Your task to perform on an android device: open app "Expedia: Hotels, Flights & Car" Image 0: 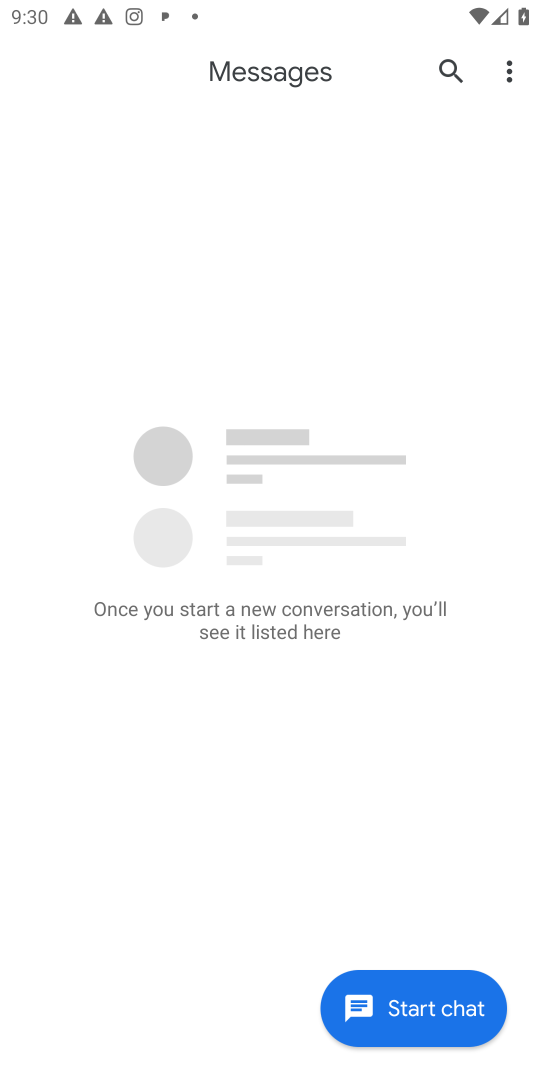
Step 0: press home button
Your task to perform on an android device: open app "Expedia: Hotels, Flights & Car" Image 1: 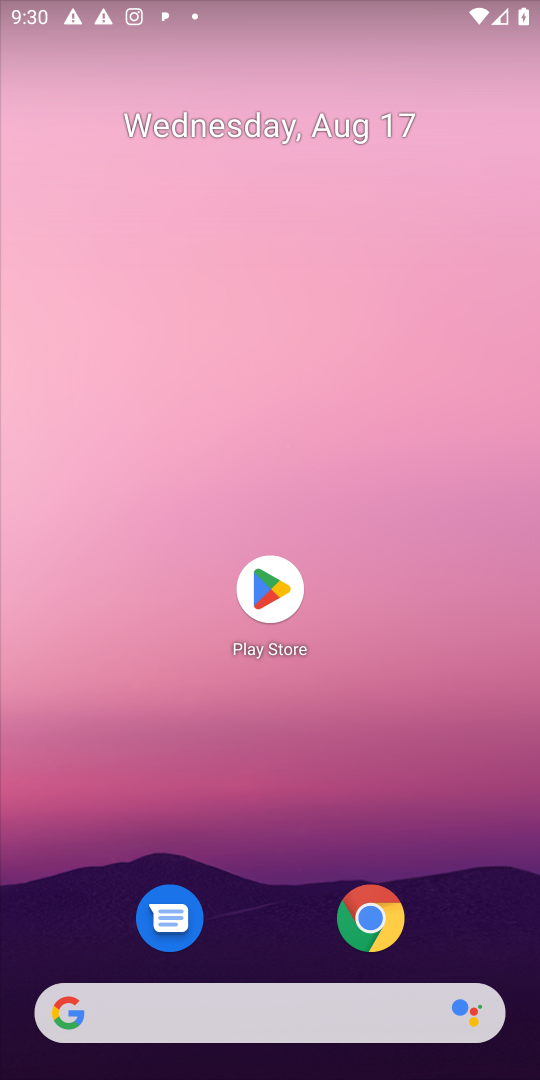
Step 1: click (268, 602)
Your task to perform on an android device: open app "Expedia: Hotels, Flights & Car" Image 2: 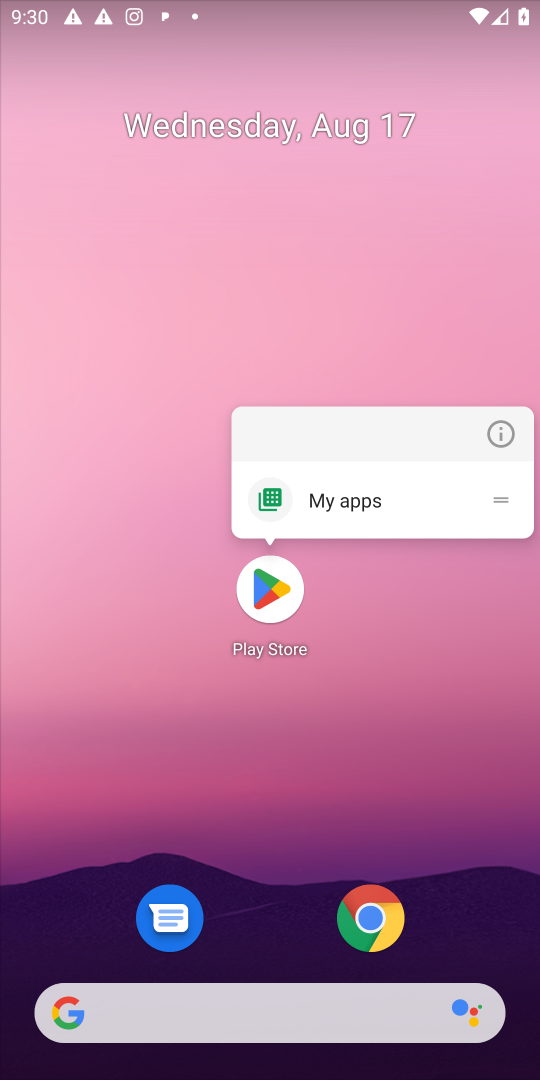
Step 2: click (267, 588)
Your task to perform on an android device: open app "Expedia: Hotels, Flights & Car" Image 3: 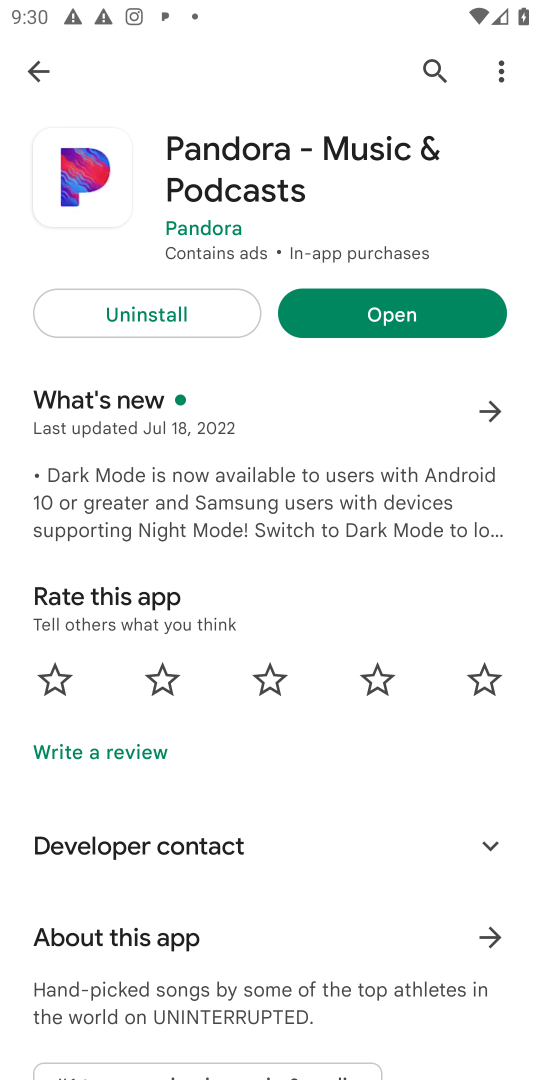
Step 3: click (439, 70)
Your task to perform on an android device: open app "Expedia: Hotels, Flights & Car" Image 4: 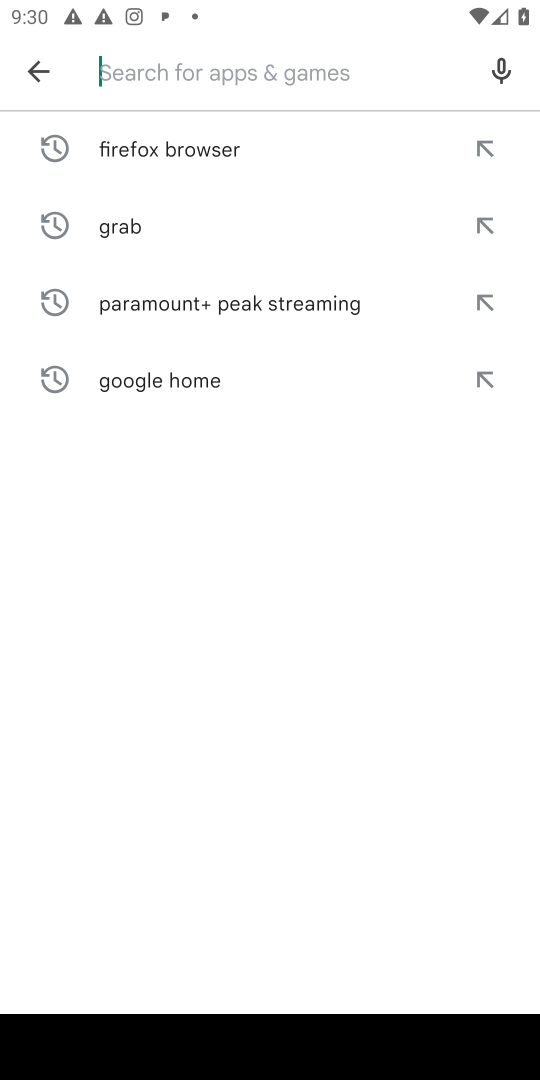
Step 4: type "Expedia: Hotels, Flights & Car"
Your task to perform on an android device: open app "Expedia: Hotels, Flights & Car" Image 5: 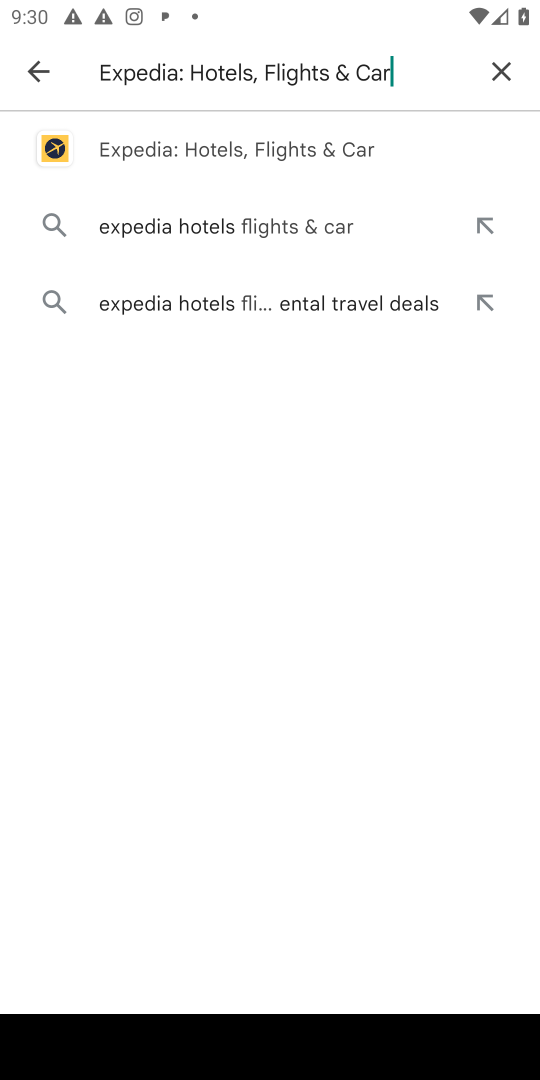
Step 5: click (309, 143)
Your task to perform on an android device: open app "Expedia: Hotels, Flights & Car" Image 6: 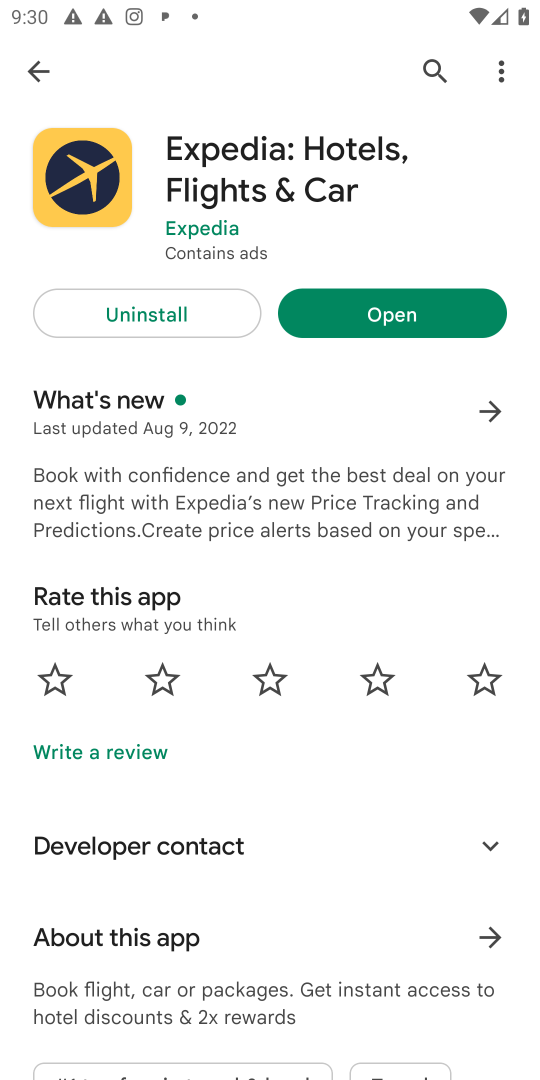
Step 6: click (404, 305)
Your task to perform on an android device: open app "Expedia: Hotels, Flights & Car" Image 7: 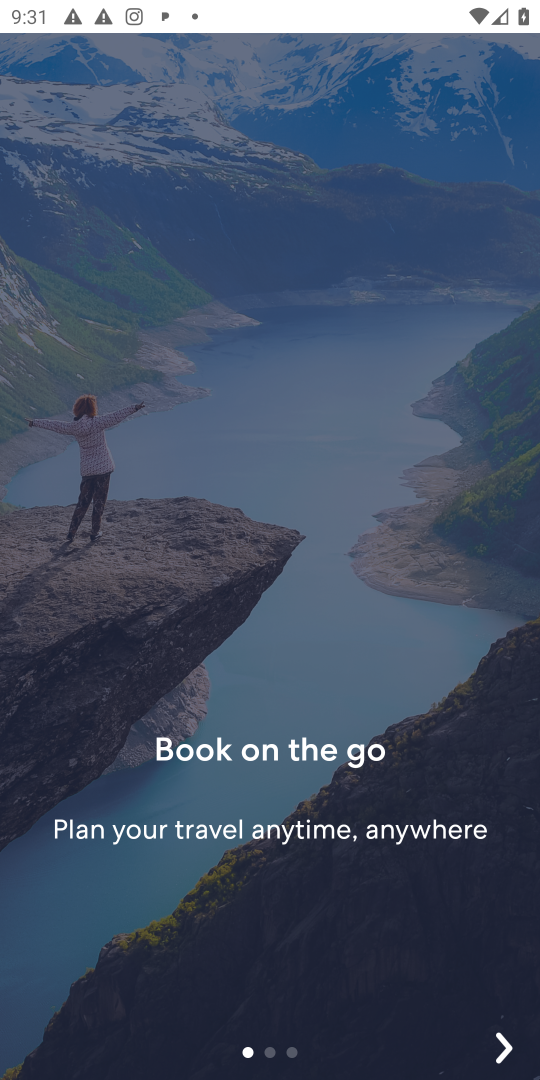
Step 7: task complete